Your task to perform on an android device: allow cookies in the chrome app Image 0: 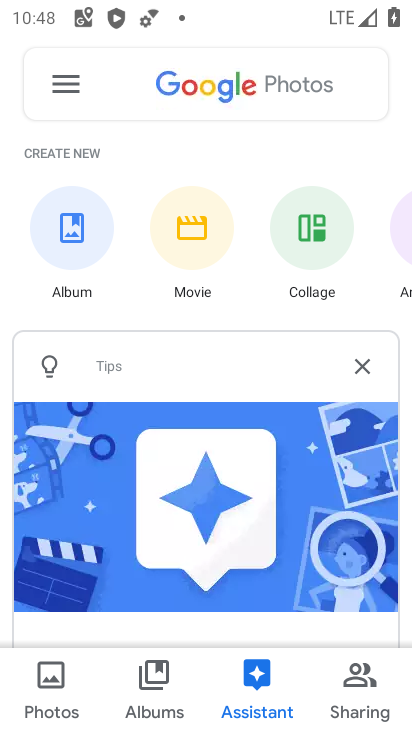
Step 0: press back button
Your task to perform on an android device: allow cookies in the chrome app Image 1: 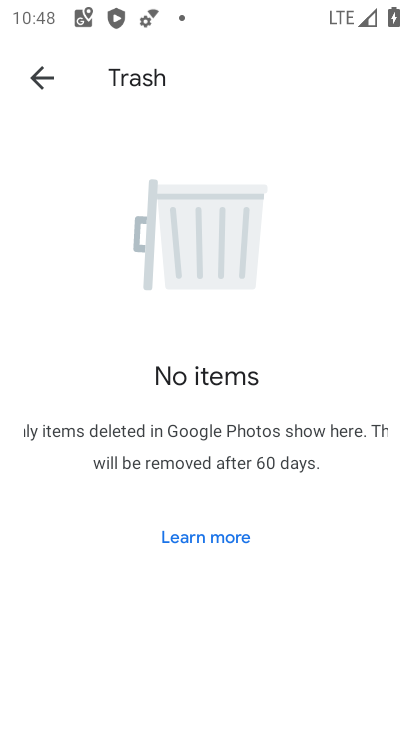
Step 1: press back button
Your task to perform on an android device: allow cookies in the chrome app Image 2: 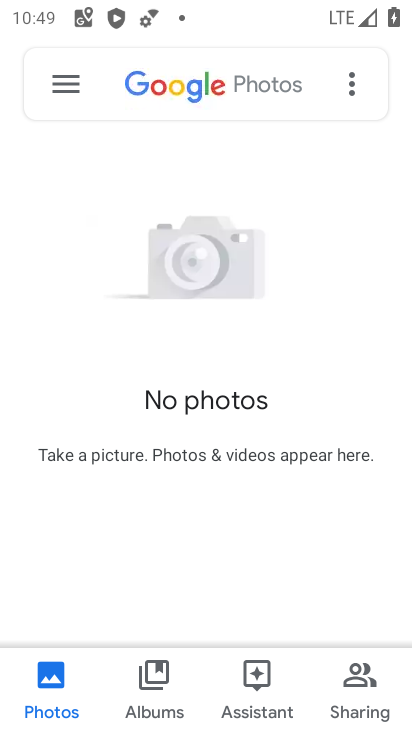
Step 2: press back button
Your task to perform on an android device: allow cookies in the chrome app Image 3: 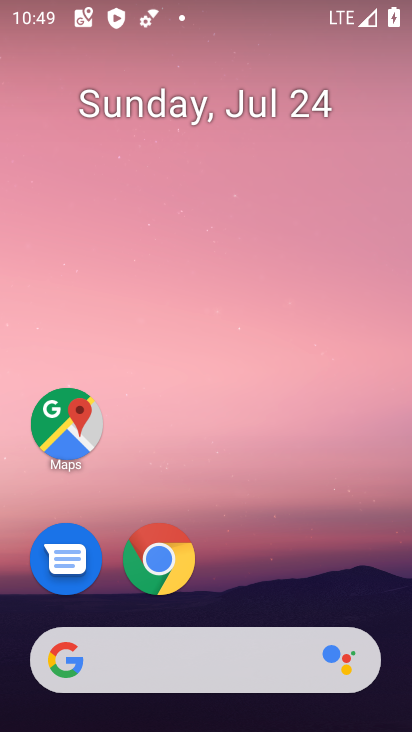
Step 3: click (154, 571)
Your task to perform on an android device: allow cookies in the chrome app Image 4: 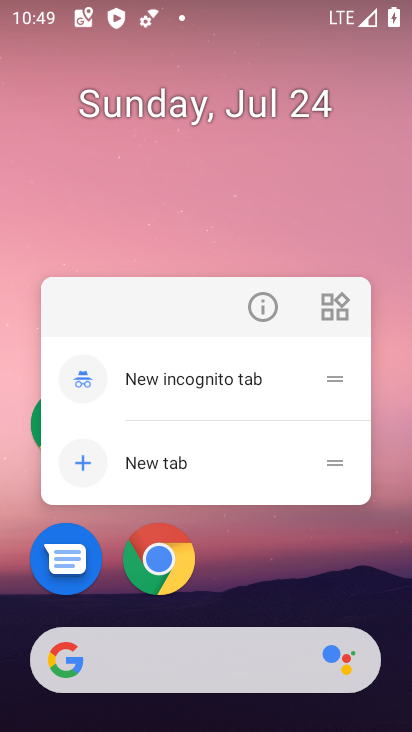
Step 4: click (164, 564)
Your task to perform on an android device: allow cookies in the chrome app Image 5: 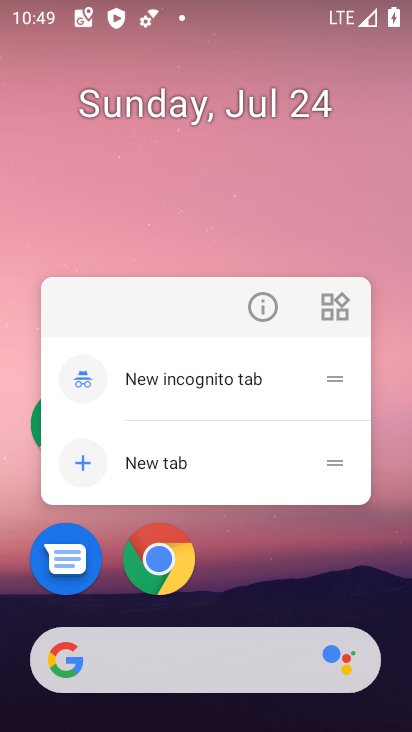
Step 5: click (156, 558)
Your task to perform on an android device: allow cookies in the chrome app Image 6: 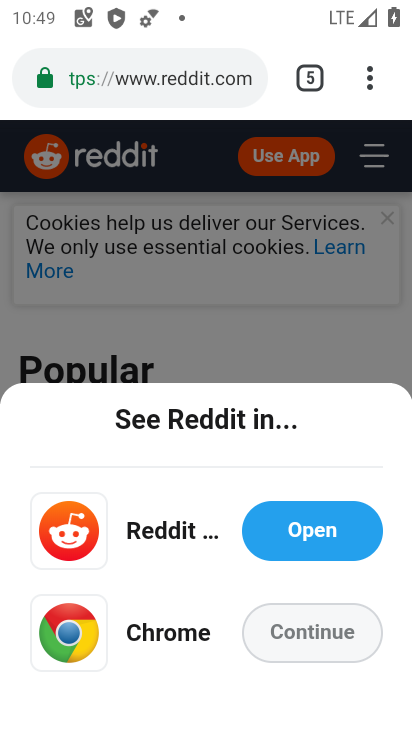
Step 6: drag from (373, 65) to (118, 614)
Your task to perform on an android device: allow cookies in the chrome app Image 7: 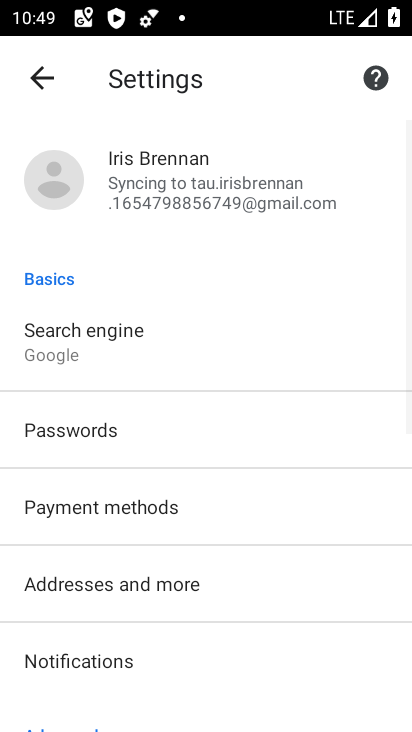
Step 7: drag from (128, 642) to (242, 201)
Your task to perform on an android device: allow cookies in the chrome app Image 8: 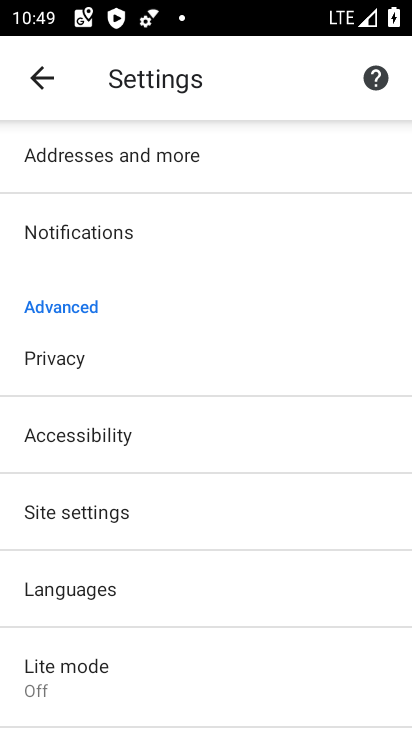
Step 8: click (92, 505)
Your task to perform on an android device: allow cookies in the chrome app Image 9: 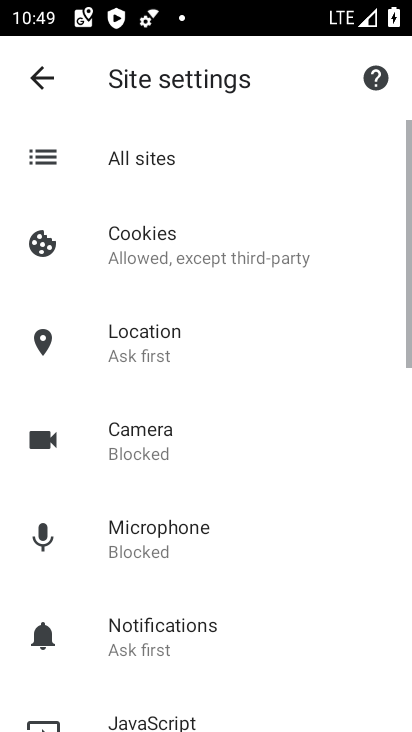
Step 9: click (176, 247)
Your task to perform on an android device: allow cookies in the chrome app Image 10: 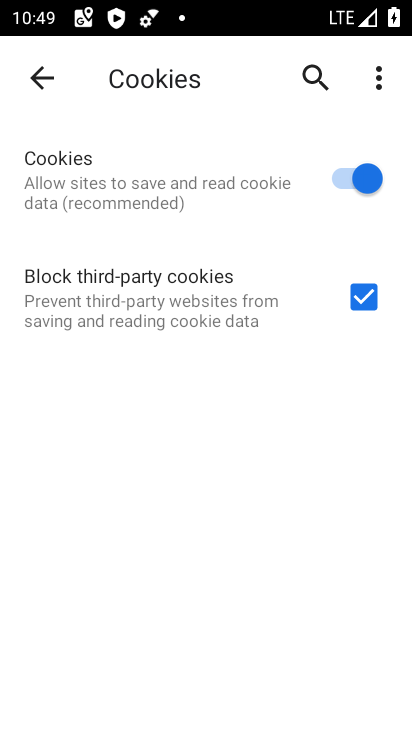
Step 10: task complete